Your task to perform on an android device: allow cookies in the chrome app Image 0: 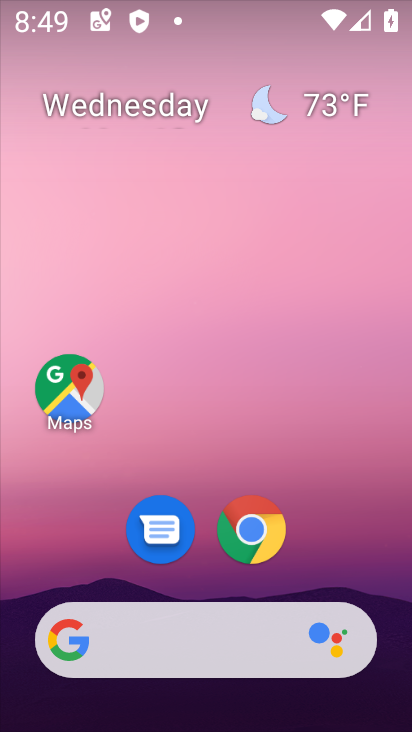
Step 0: drag from (382, 563) to (369, 261)
Your task to perform on an android device: allow cookies in the chrome app Image 1: 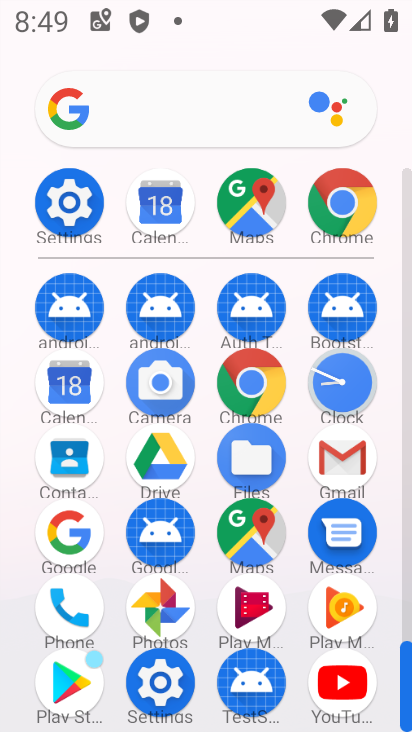
Step 1: click (264, 399)
Your task to perform on an android device: allow cookies in the chrome app Image 2: 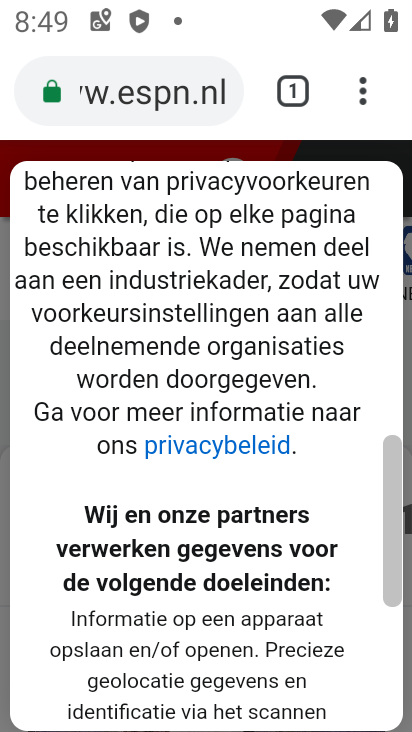
Step 2: click (363, 84)
Your task to perform on an android device: allow cookies in the chrome app Image 3: 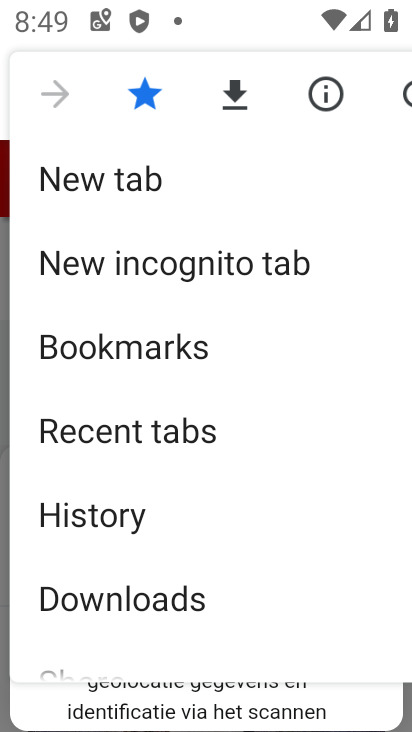
Step 3: drag from (352, 525) to (363, 360)
Your task to perform on an android device: allow cookies in the chrome app Image 4: 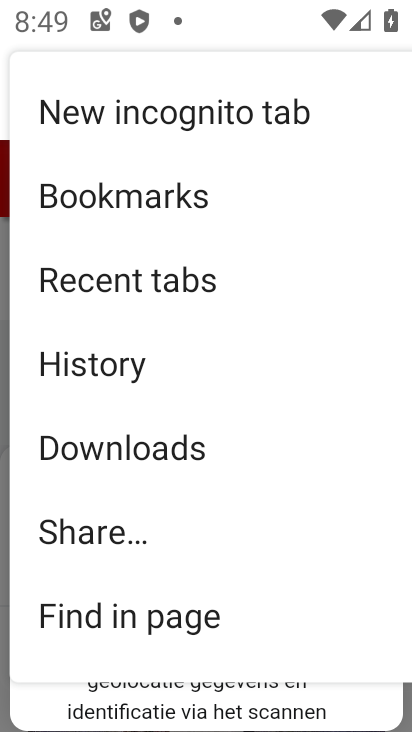
Step 4: drag from (322, 544) to (331, 459)
Your task to perform on an android device: allow cookies in the chrome app Image 5: 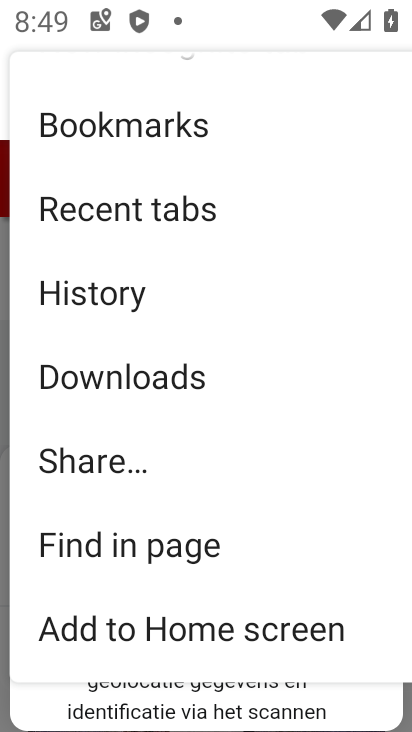
Step 5: drag from (312, 562) to (313, 427)
Your task to perform on an android device: allow cookies in the chrome app Image 6: 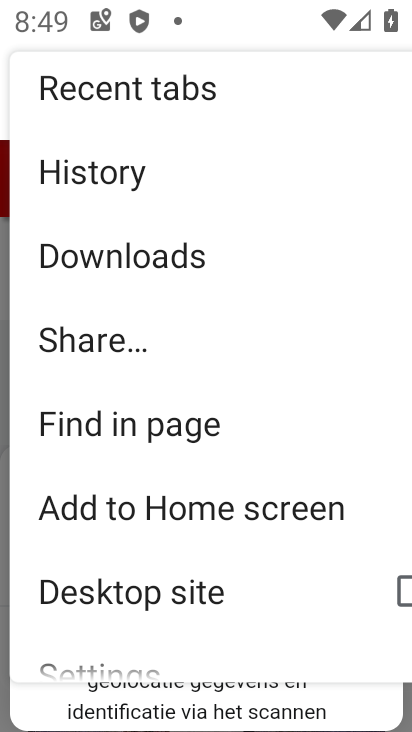
Step 6: drag from (317, 574) to (341, 417)
Your task to perform on an android device: allow cookies in the chrome app Image 7: 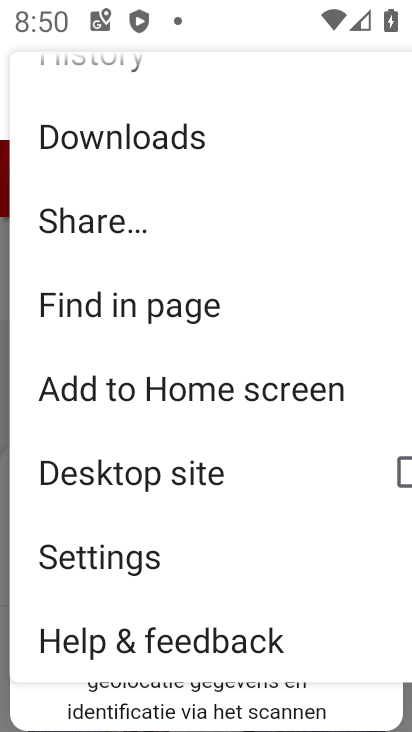
Step 7: drag from (337, 573) to (328, 382)
Your task to perform on an android device: allow cookies in the chrome app Image 8: 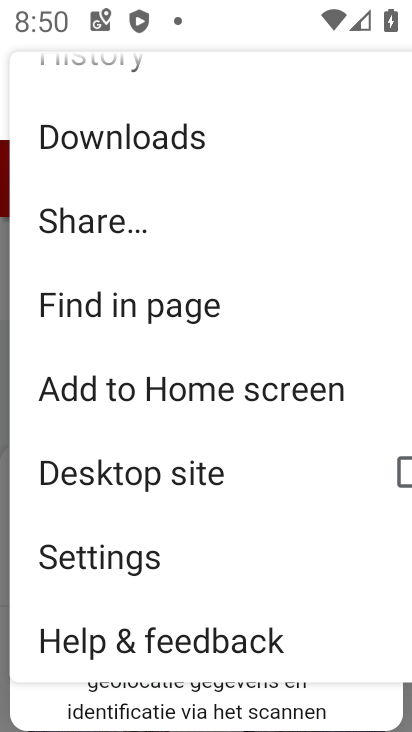
Step 8: click (140, 567)
Your task to perform on an android device: allow cookies in the chrome app Image 9: 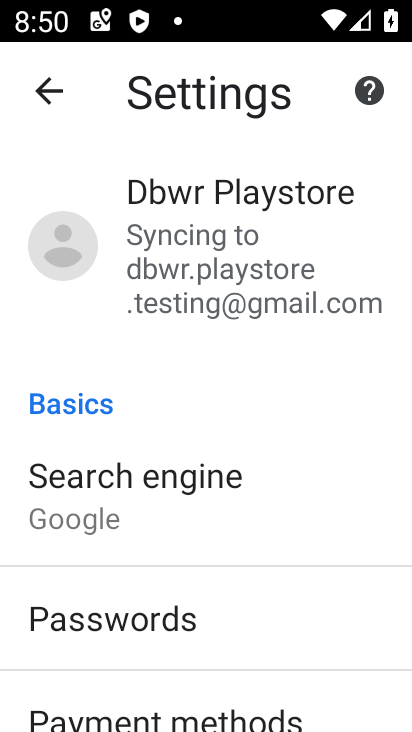
Step 9: drag from (261, 591) to (285, 474)
Your task to perform on an android device: allow cookies in the chrome app Image 10: 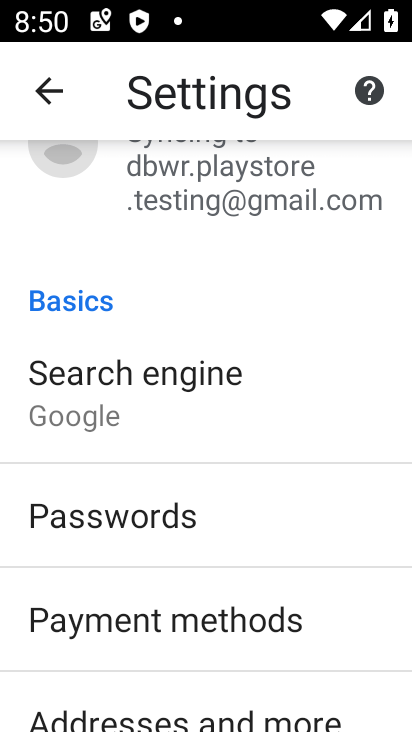
Step 10: drag from (322, 584) to (336, 530)
Your task to perform on an android device: allow cookies in the chrome app Image 11: 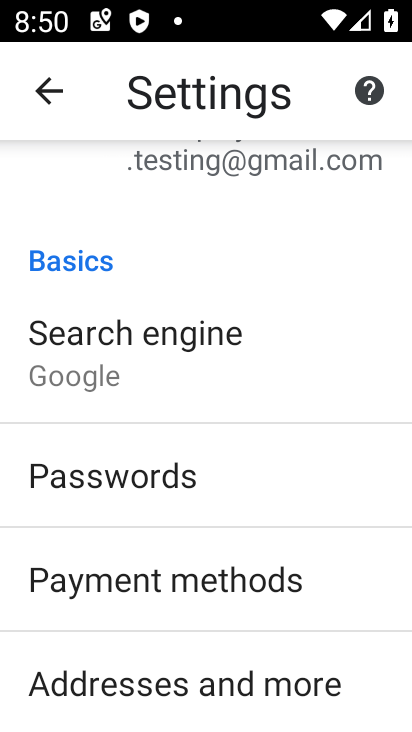
Step 11: drag from (349, 629) to (352, 477)
Your task to perform on an android device: allow cookies in the chrome app Image 12: 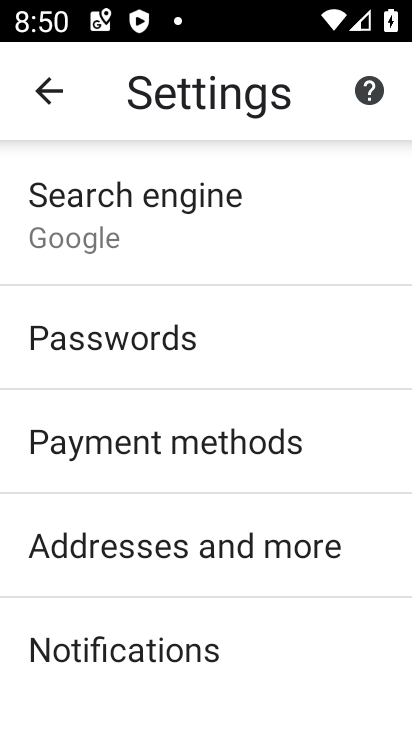
Step 12: drag from (326, 671) to (326, 531)
Your task to perform on an android device: allow cookies in the chrome app Image 13: 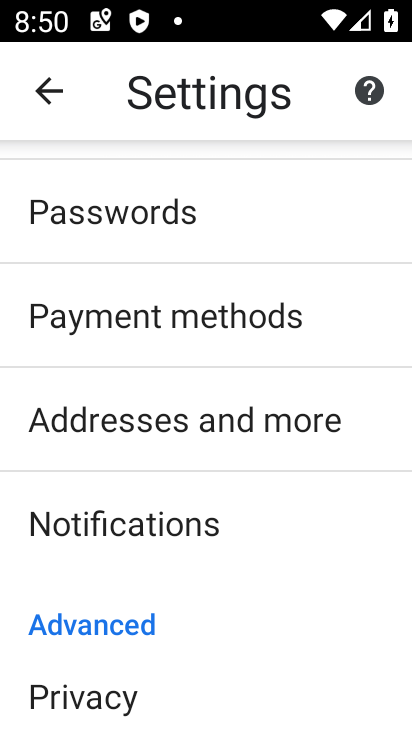
Step 13: drag from (325, 662) to (332, 522)
Your task to perform on an android device: allow cookies in the chrome app Image 14: 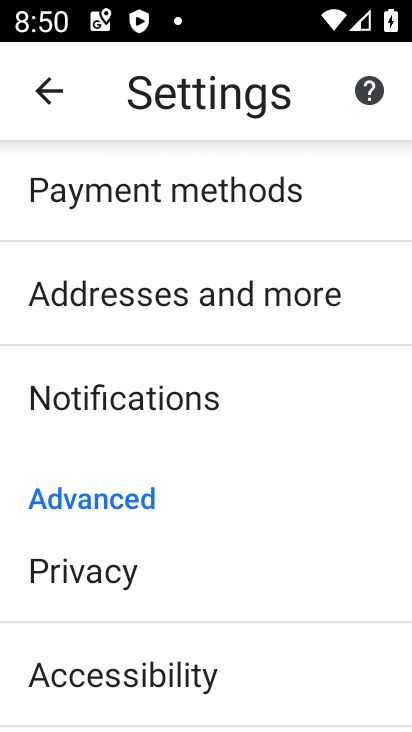
Step 14: drag from (318, 669) to (318, 578)
Your task to perform on an android device: allow cookies in the chrome app Image 15: 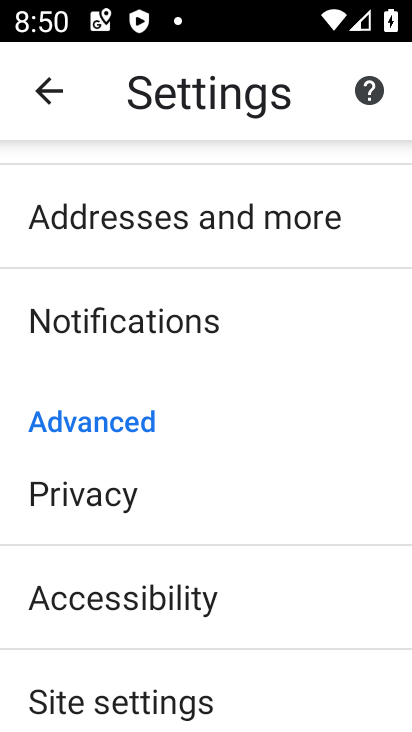
Step 15: drag from (318, 646) to (317, 460)
Your task to perform on an android device: allow cookies in the chrome app Image 16: 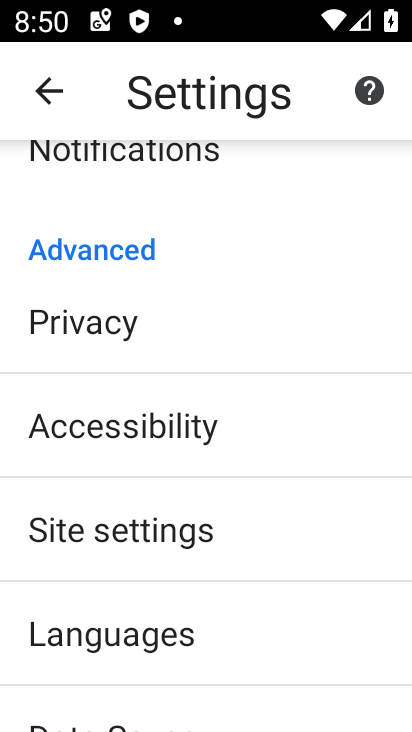
Step 16: drag from (289, 542) to (317, 409)
Your task to perform on an android device: allow cookies in the chrome app Image 17: 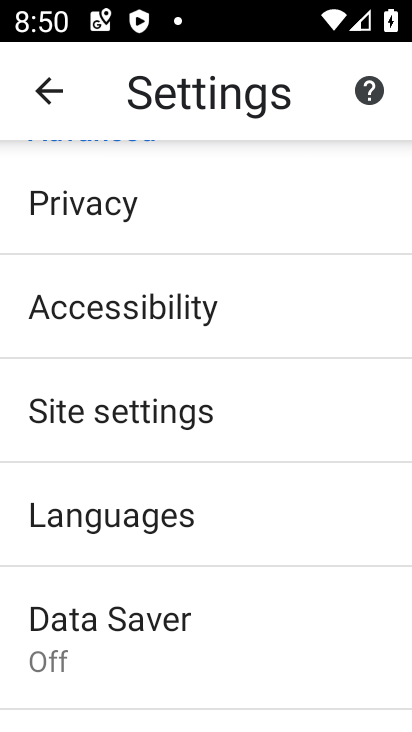
Step 17: drag from (336, 605) to (345, 485)
Your task to perform on an android device: allow cookies in the chrome app Image 18: 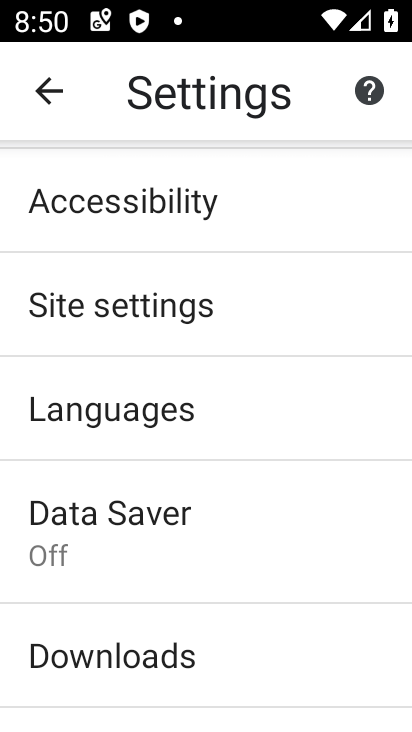
Step 18: drag from (334, 544) to (347, 396)
Your task to perform on an android device: allow cookies in the chrome app Image 19: 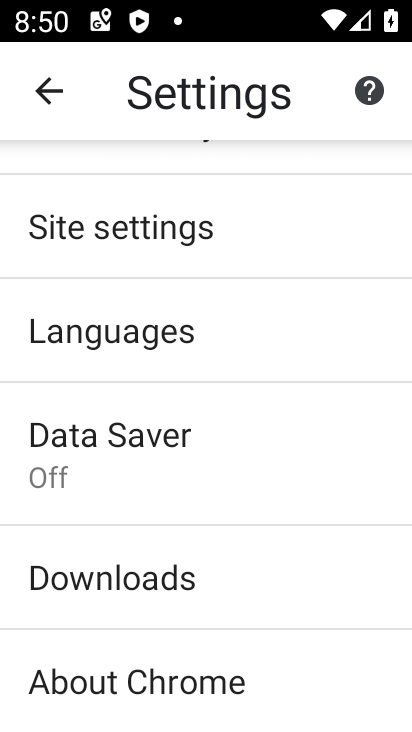
Step 19: drag from (310, 514) to (329, 391)
Your task to perform on an android device: allow cookies in the chrome app Image 20: 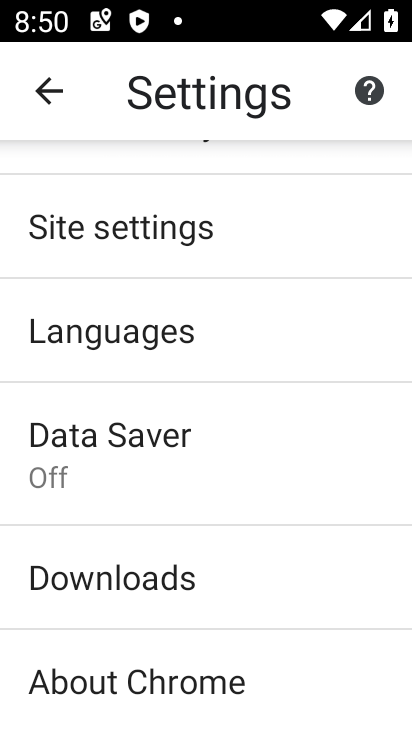
Step 20: click (226, 251)
Your task to perform on an android device: allow cookies in the chrome app Image 21: 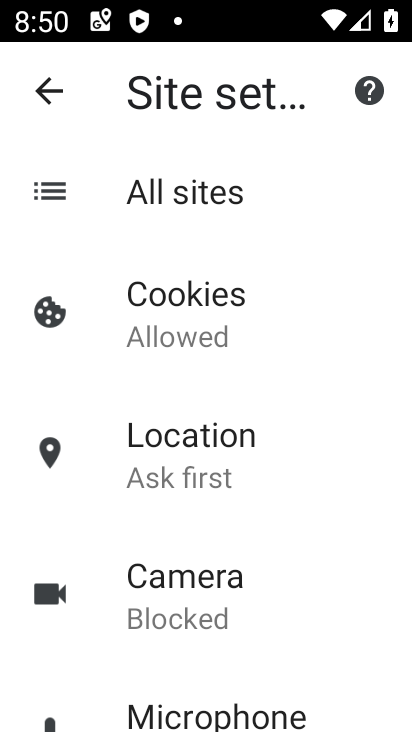
Step 21: drag from (312, 533) to (326, 329)
Your task to perform on an android device: allow cookies in the chrome app Image 22: 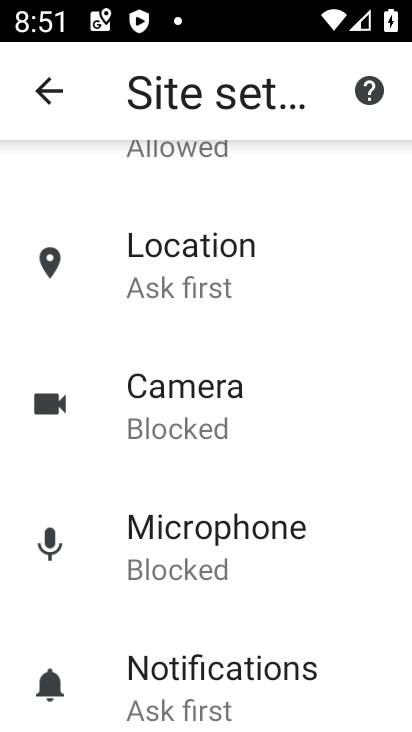
Step 22: drag from (341, 619) to (351, 445)
Your task to perform on an android device: allow cookies in the chrome app Image 23: 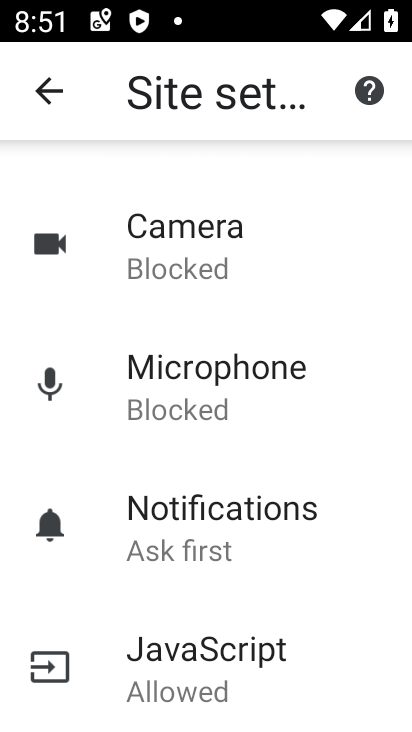
Step 23: drag from (330, 608) to (324, 449)
Your task to perform on an android device: allow cookies in the chrome app Image 24: 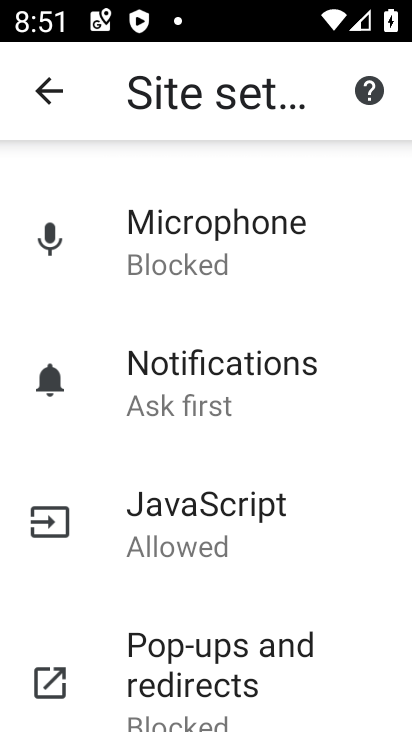
Step 24: drag from (326, 610) to (335, 482)
Your task to perform on an android device: allow cookies in the chrome app Image 25: 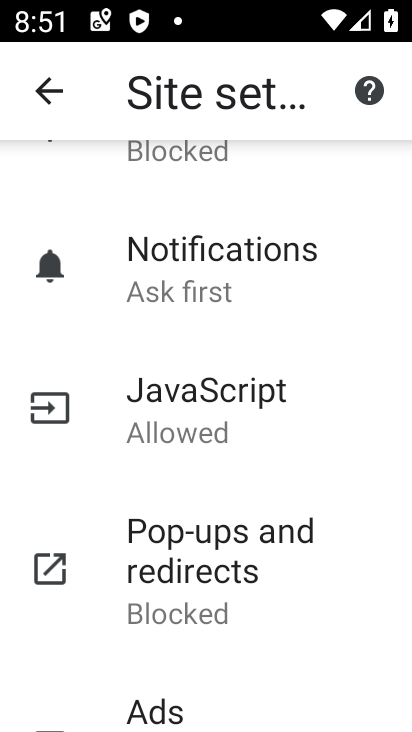
Step 25: drag from (351, 296) to (354, 522)
Your task to perform on an android device: allow cookies in the chrome app Image 26: 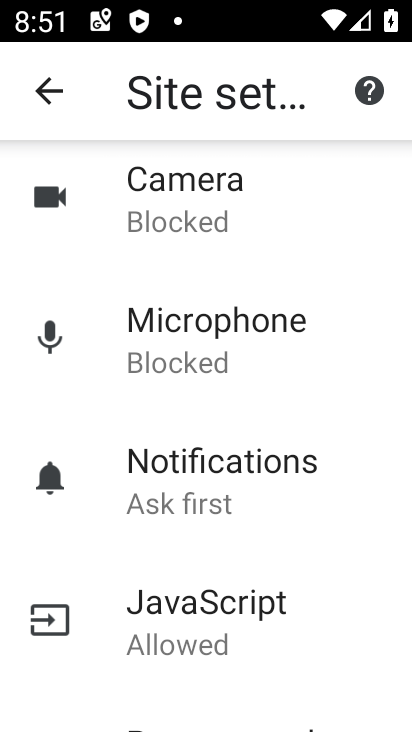
Step 26: drag from (332, 283) to (334, 494)
Your task to perform on an android device: allow cookies in the chrome app Image 27: 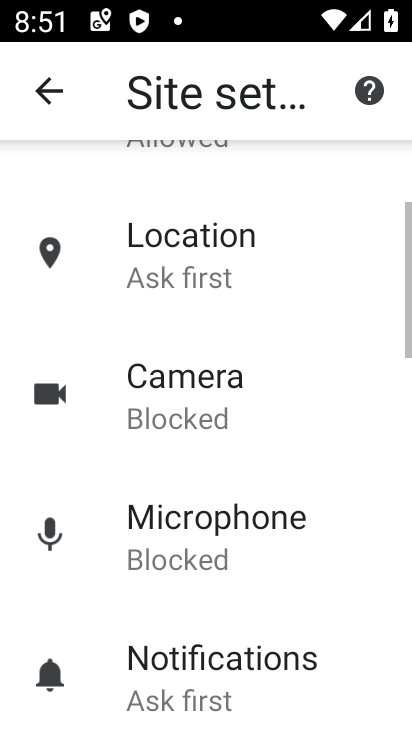
Step 27: drag from (317, 303) to (327, 509)
Your task to perform on an android device: allow cookies in the chrome app Image 28: 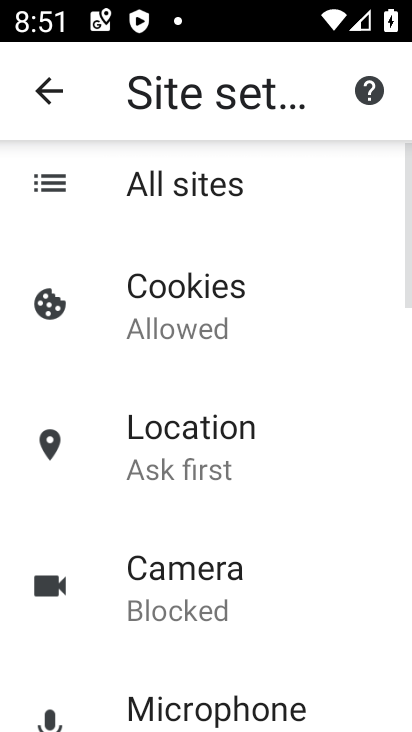
Step 28: drag from (315, 298) to (311, 452)
Your task to perform on an android device: allow cookies in the chrome app Image 29: 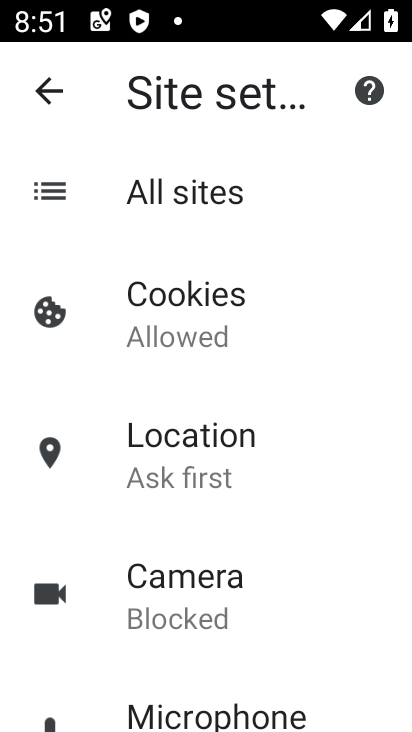
Step 29: click (215, 310)
Your task to perform on an android device: allow cookies in the chrome app Image 30: 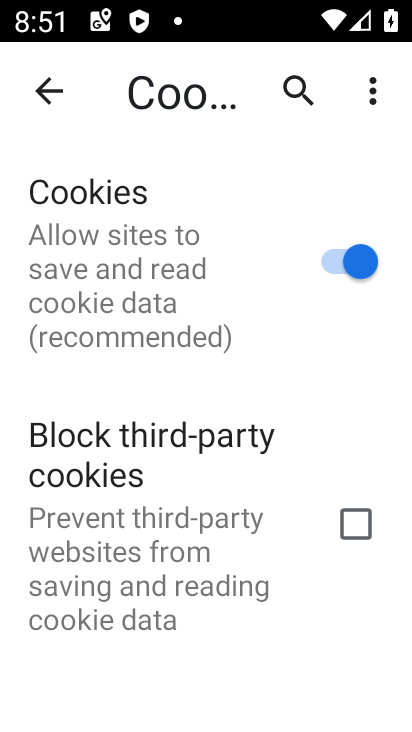
Step 30: task complete